Your task to perform on an android device: Empty the shopping cart on walmart. Image 0: 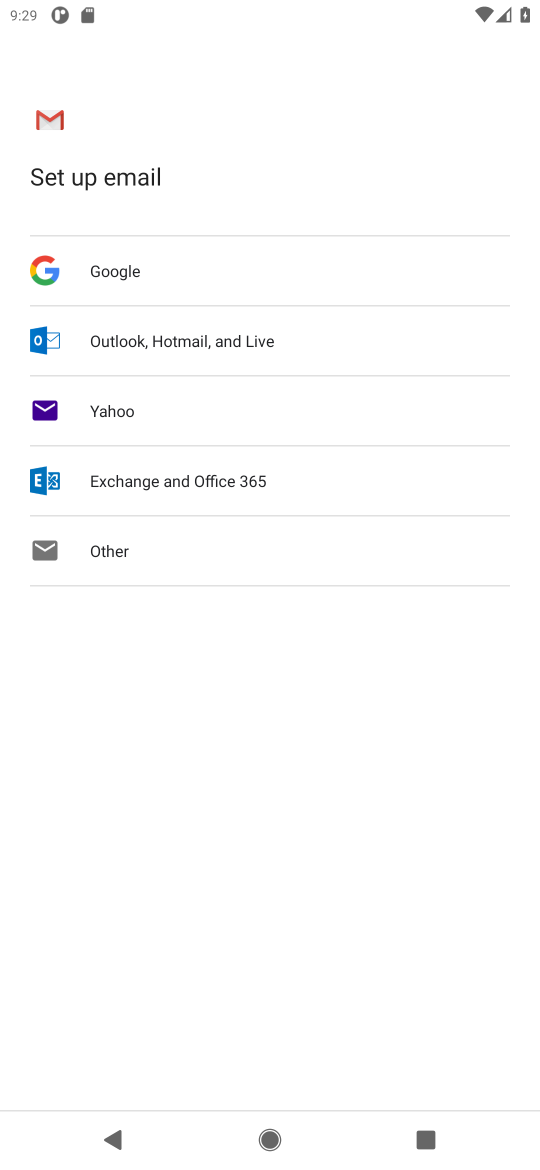
Step 0: press home button
Your task to perform on an android device: Empty the shopping cart on walmart. Image 1: 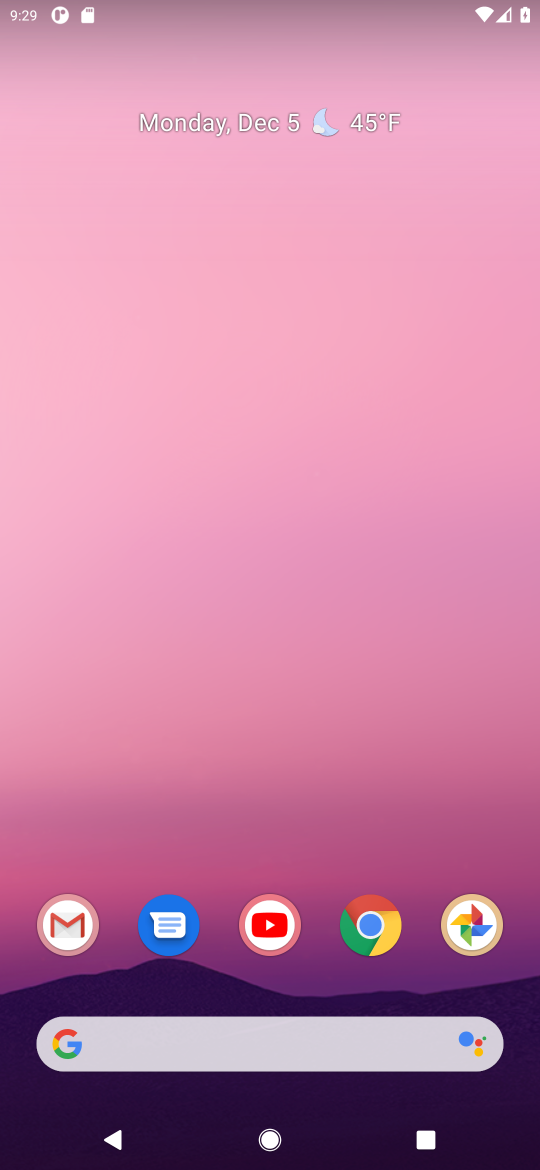
Step 1: click (369, 942)
Your task to perform on an android device: Empty the shopping cart on walmart. Image 2: 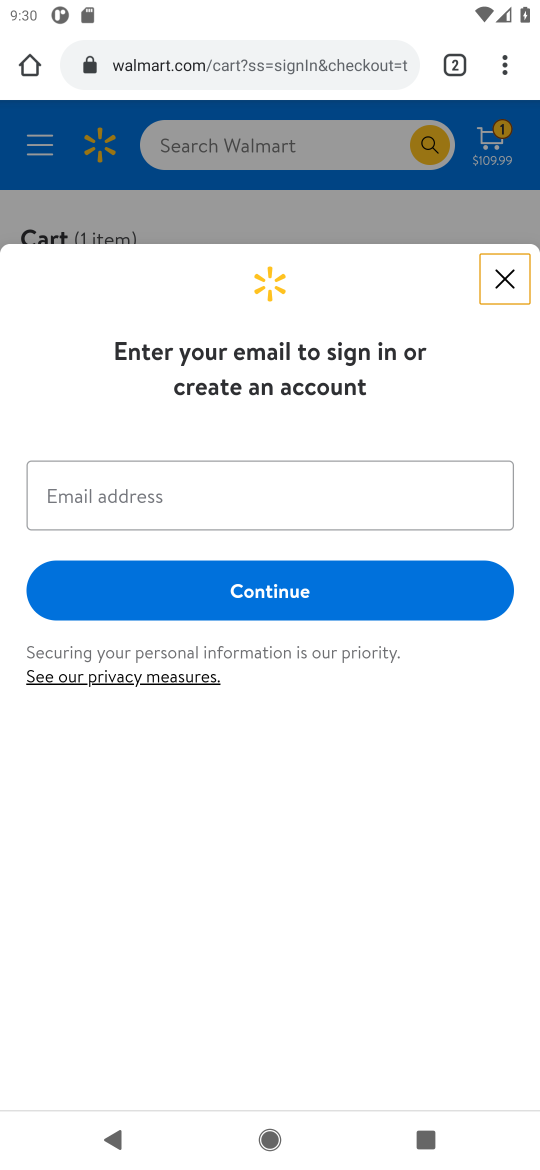
Step 2: click (510, 278)
Your task to perform on an android device: Empty the shopping cart on walmart. Image 3: 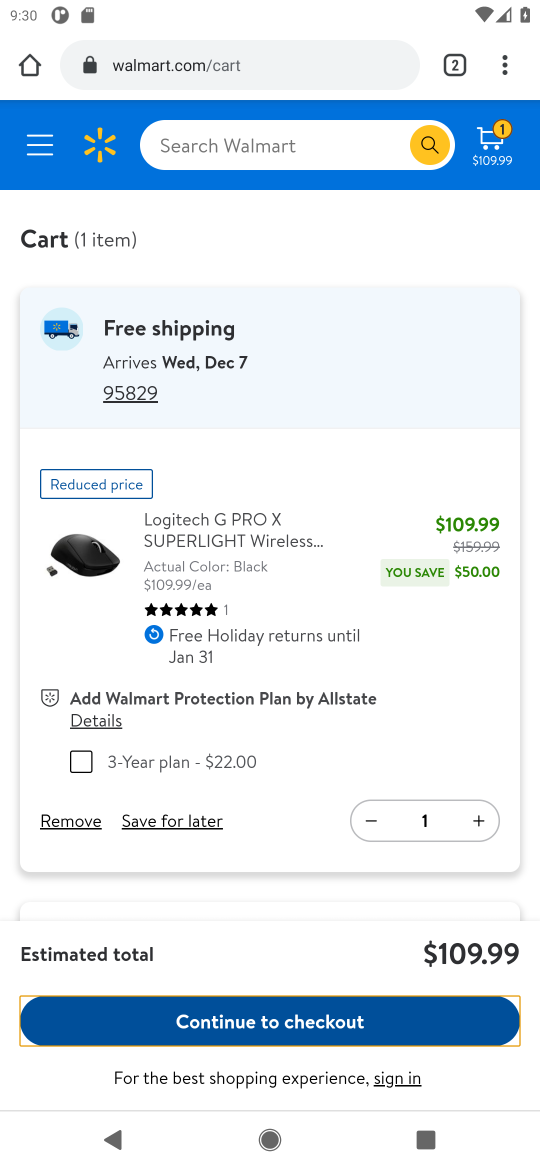
Step 3: click (58, 822)
Your task to perform on an android device: Empty the shopping cart on walmart. Image 4: 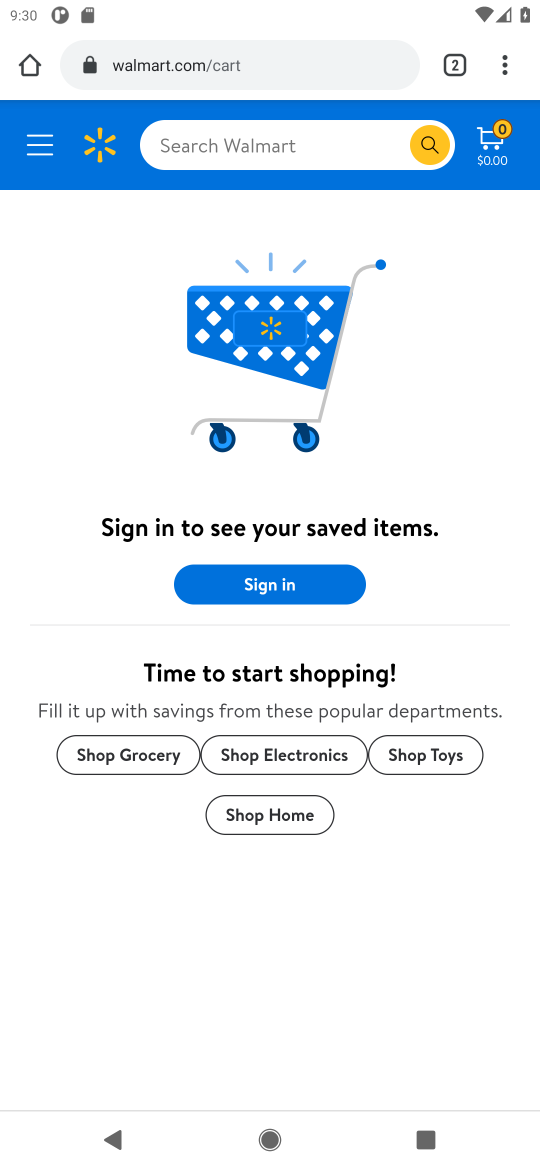
Step 4: task complete